Your task to perform on an android device: change timer sound Image 0: 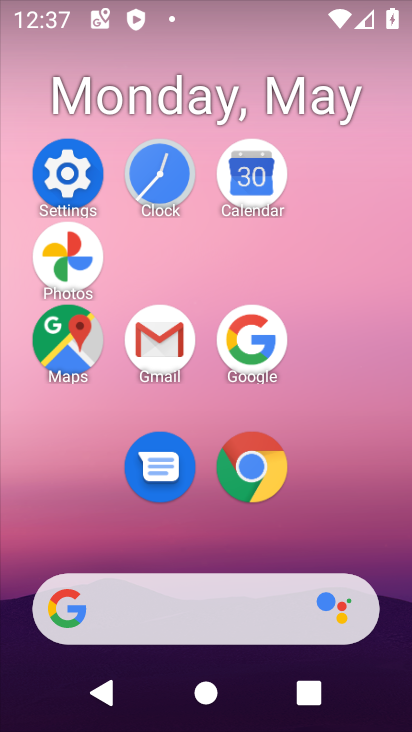
Step 0: click (174, 187)
Your task to perform on an android device: change timer sound Image 1: 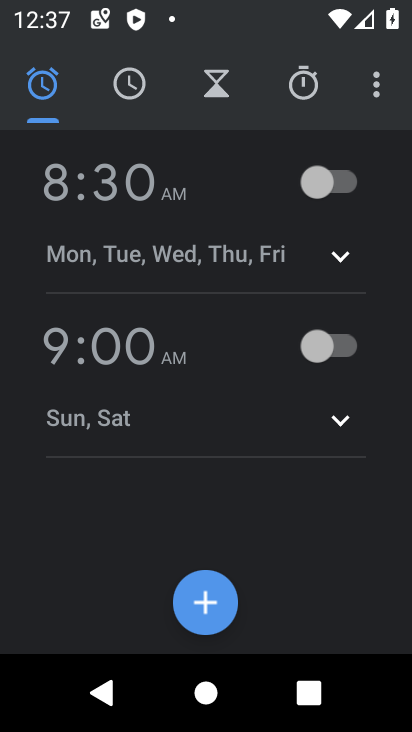
Step 1: click (386, 87)
Your task to perform on an android device: change timer sound Image 2: 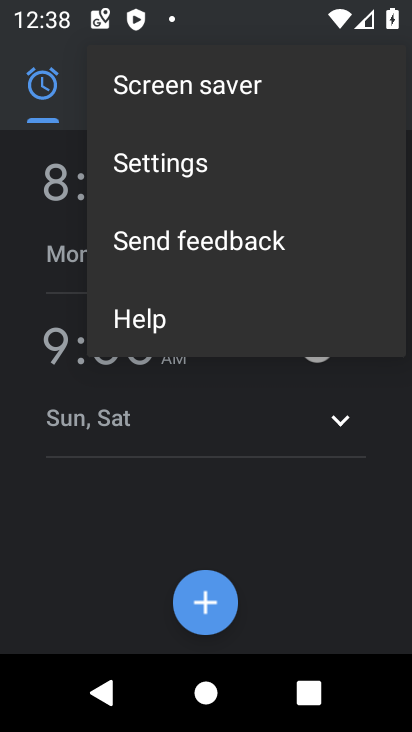
Step 2: click (139, 168)
Your task to perform on an android device: change timer sound Image 3: 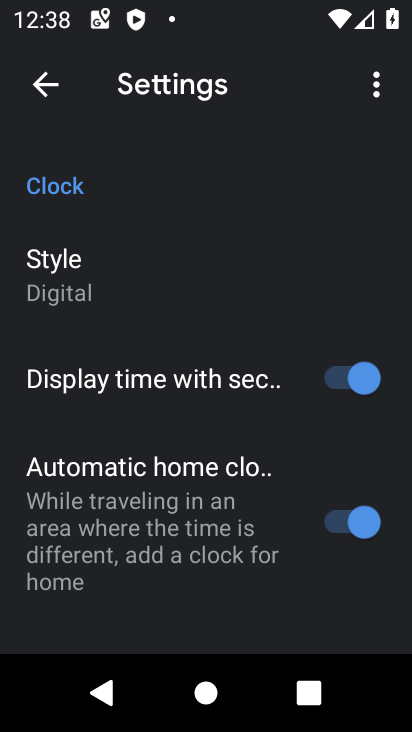
Step 3: drag from (184, 468) to (182, 135)
Your task to perform on an android device: change timer sound Image 4: 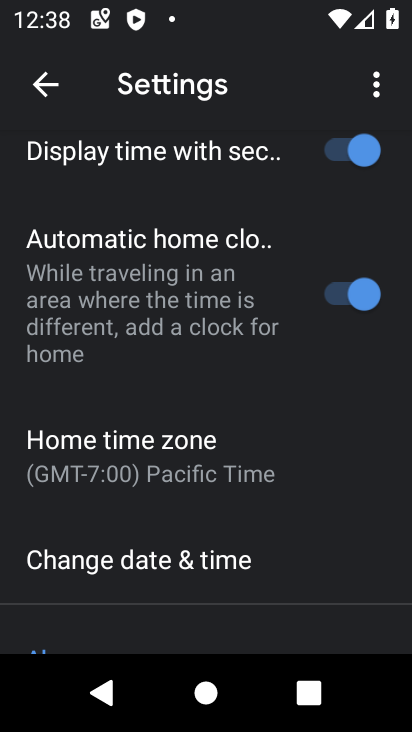
Step 4: drag from (319, 479) to (253, 128)
Your task to perform on an android device: change timer sound Image 5: 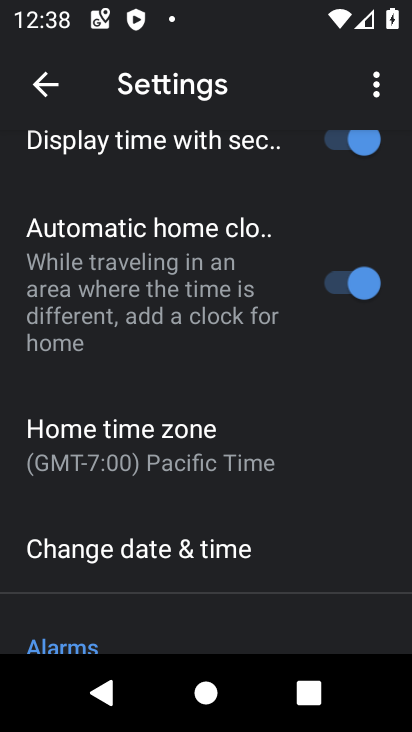
Step 5: drag from (253, 451) to (244, 144)
Your task to perform on an android device: change timer sound Image 6: 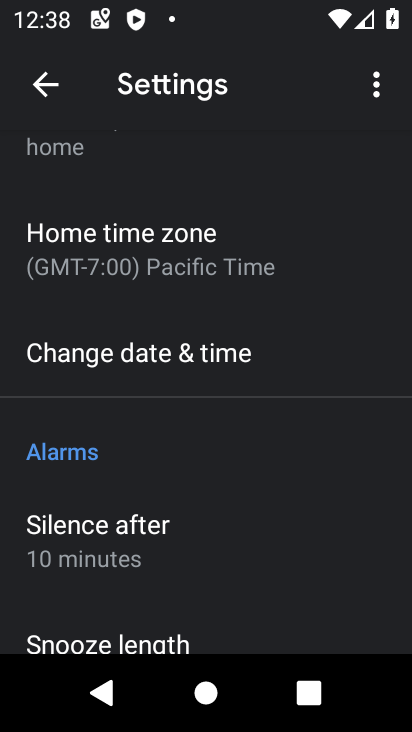
Step 6: drag from (197, 563) to (246, 240)
Your task to perform on an android device: change timer sound Image 7: 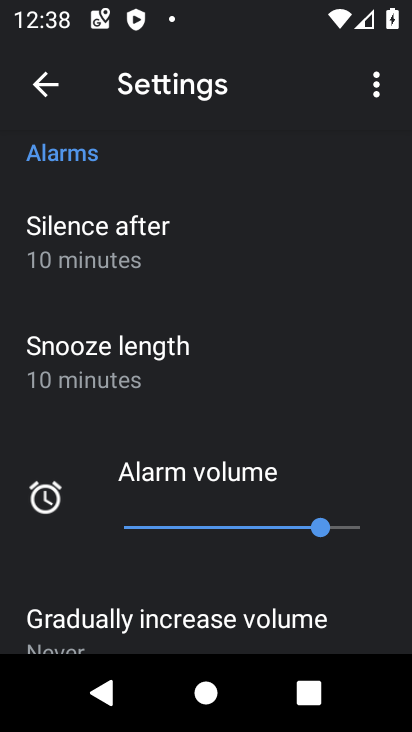
Step 7: drag from (266, 564) to (258, 143)
Your task to perform on an android device: change timer sound Image 8: 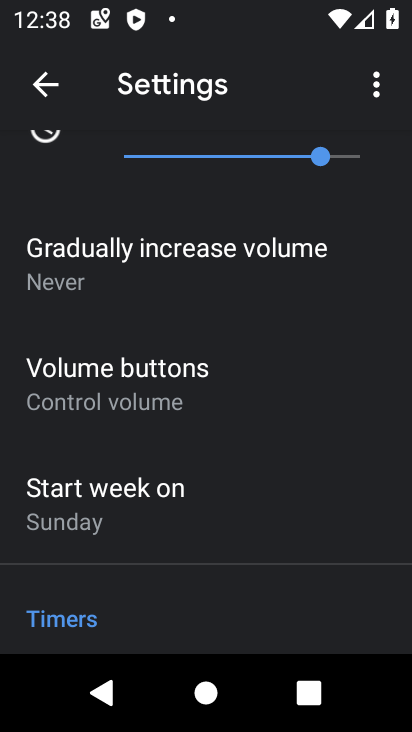
Step 8: drag from (193, 557) to (195, 173)
Your task to perform on an android device: change timer sound Image 9: 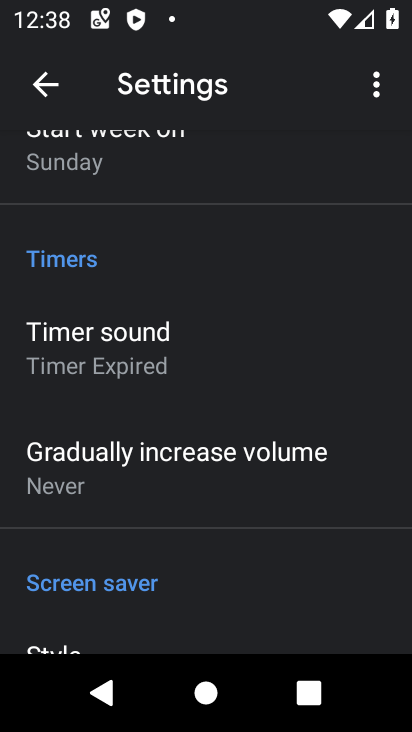
Step 9: drag from (185, 550) to (203, 364)
Your task to perform on an android device: change timer sound Image 10: 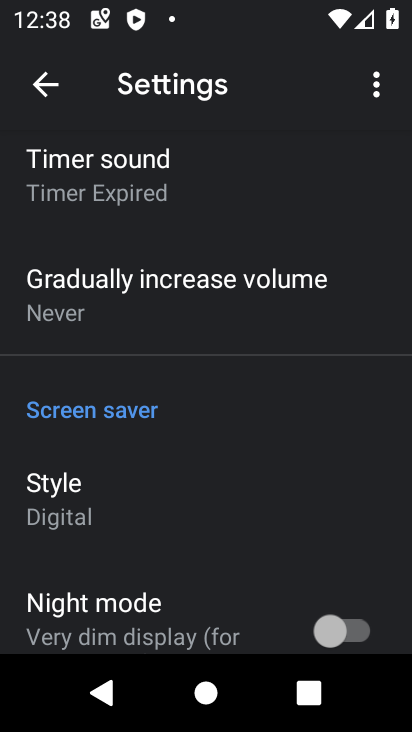
Step 10: click (129, 199)
Your task to perform on an android device: change timer sound Image 11: 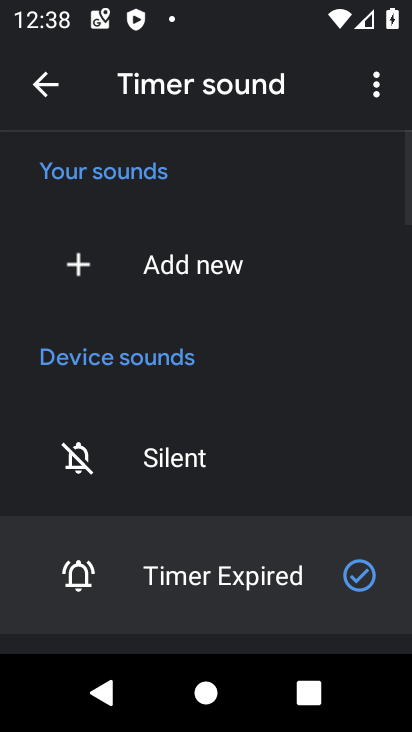
Step 11: drag from (224, 558) to (232, 221)
Your task to perform on an android device: change timer sound Image 12: 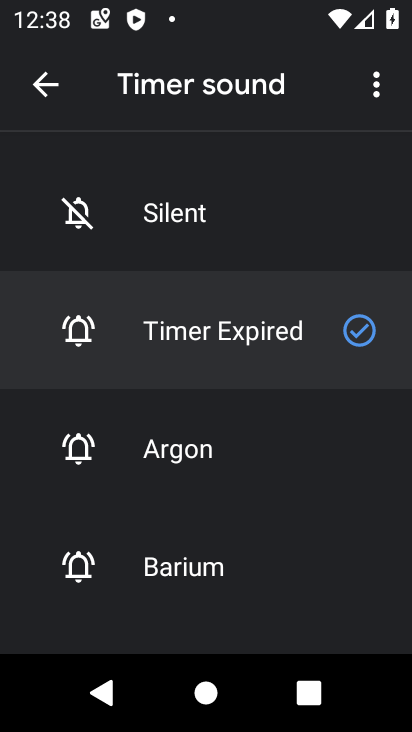
Step 12: click (169, 440)
Your task to perform on an android device: change timer sound Image 13: 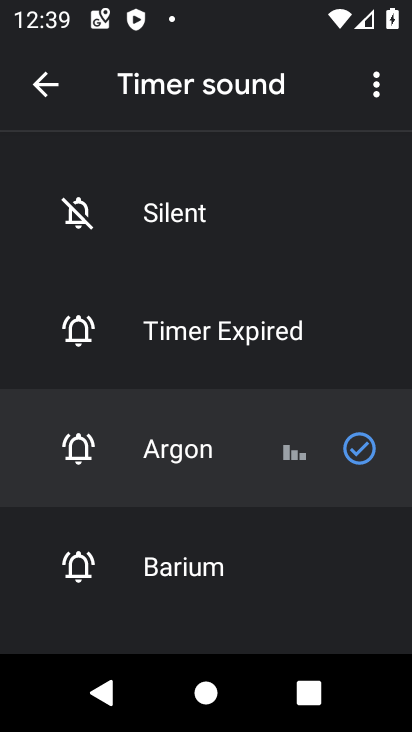
Step 13: task complete